Your task to perform on an android device: refresh tabs in the chrome app Image 0: 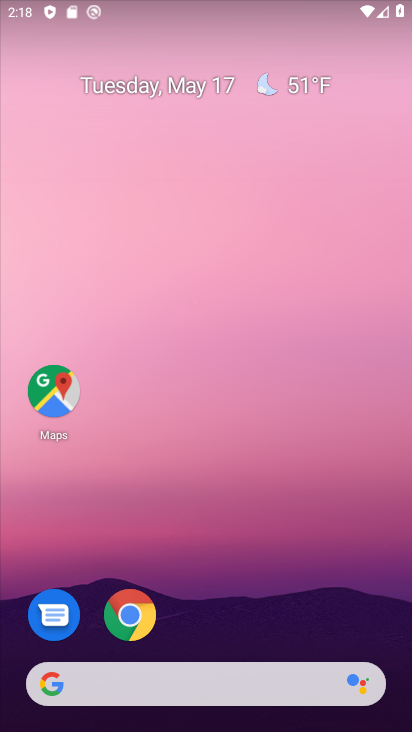
Step 0: press home button
Your task to perform on an android device: refresh tabs in the chrome app Image 1: 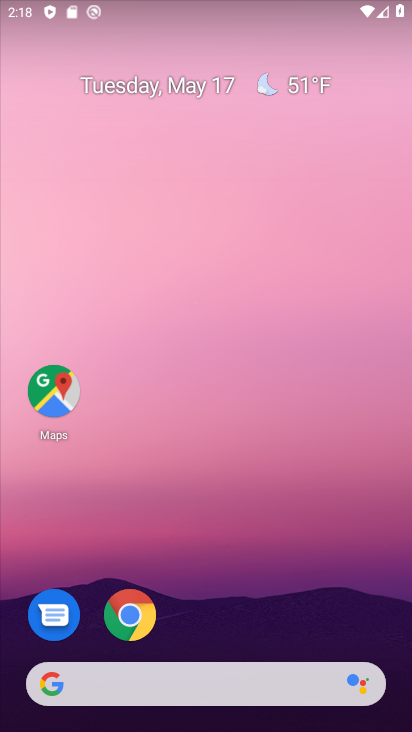
Step 1: click (127, 614)
Your task to perform on an android device: refresh tabs in the chrome app Image 2: 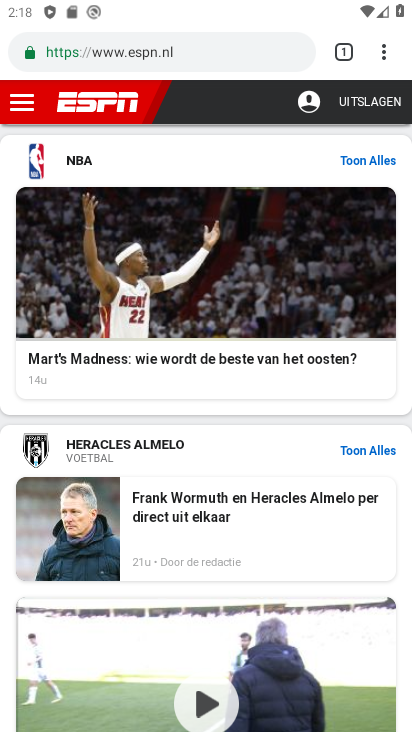
Step 2: click (380, 53)
Your task to perform on an android device: refresh tabs in the chrome app Image 3: 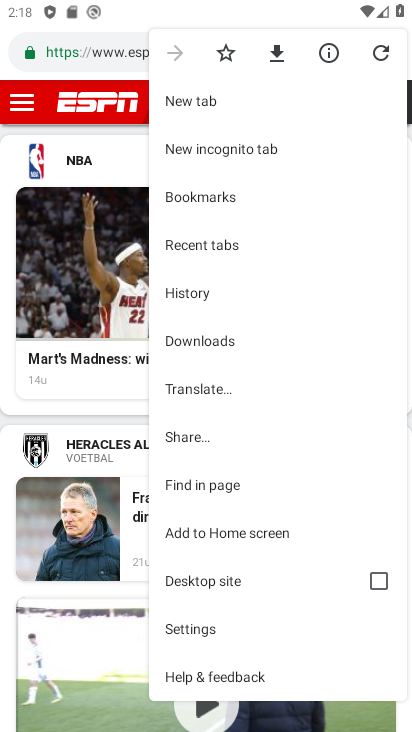
Step 3: click (375, 50)
Your task to perform on an android device: refresh tabs in the chrome app Image 4: 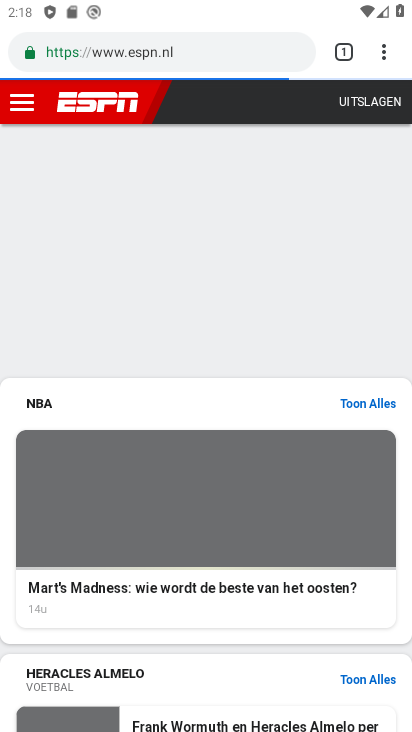
Step 4: task complete